Your task to perform on an android device: turn on the 24-hour format for clock Image 0: 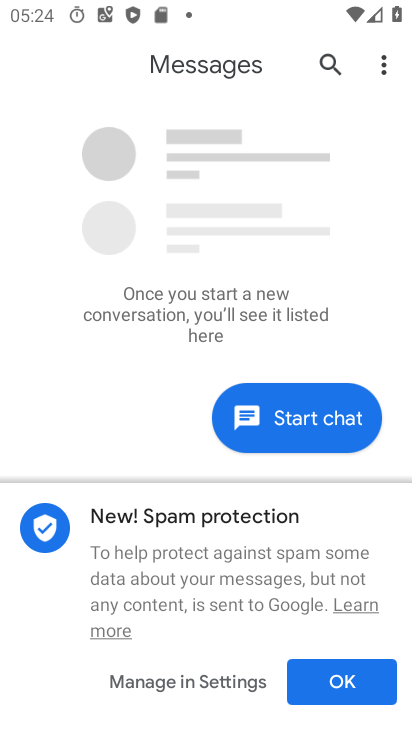
Step 0: press back button
Your task to perform on an android device: turn on the 24-hour format for clock Image 1: 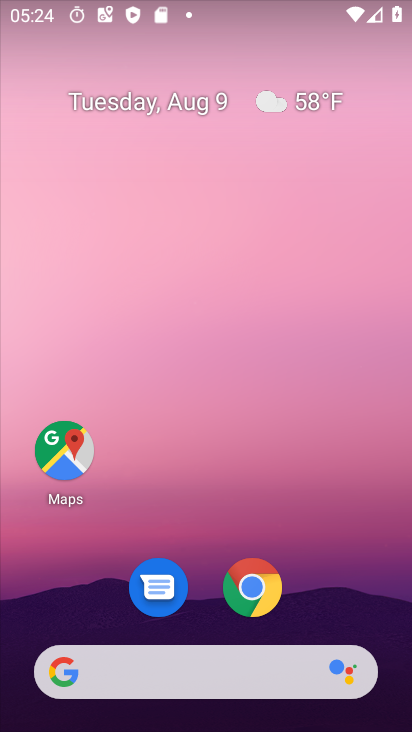
Step 1: drag from (208, 654) to (270, 2)
Your task to perform on an android device: turn on the 24-hour format for clock Image 2: 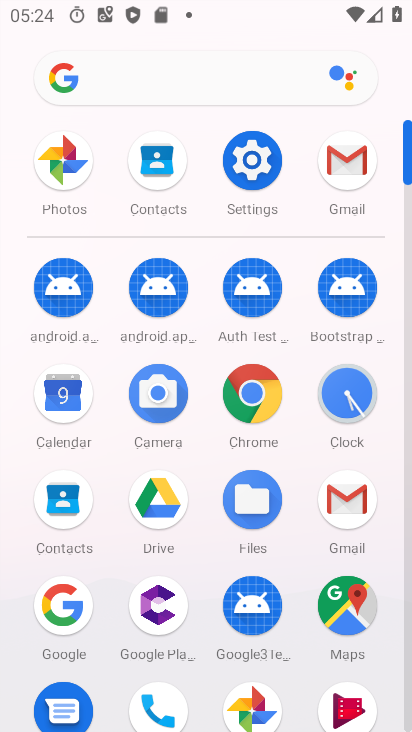
Step 2: click (258, 173)
Your task to perform on an android device: turn on the 24-hour format for clock Image 3: 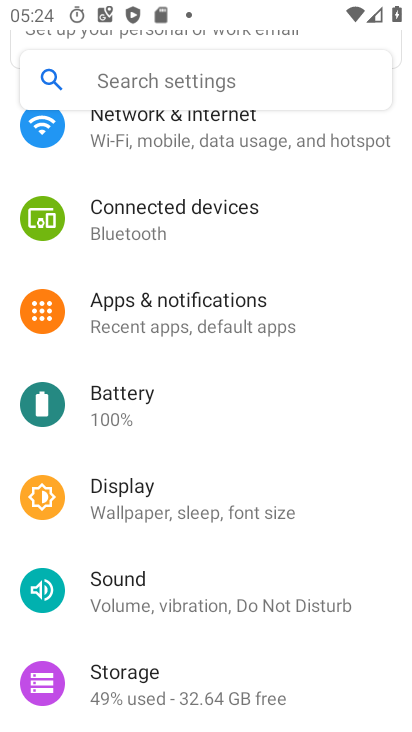
Step 3: drag from (138, 624) to (135, 47)
Your task to perform on an android device: turn on the 24-hour format for clock Image 4: 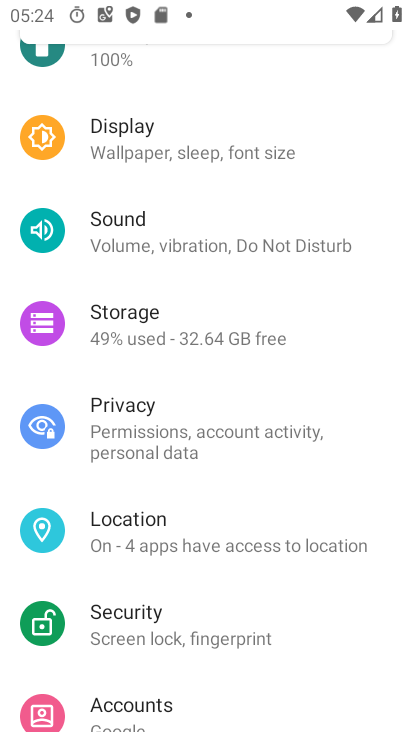
Step 4: drag from (173, 645) to (227, 0)
Your task to perform on an android device: turn on the 24-hour format for clock Image 5: 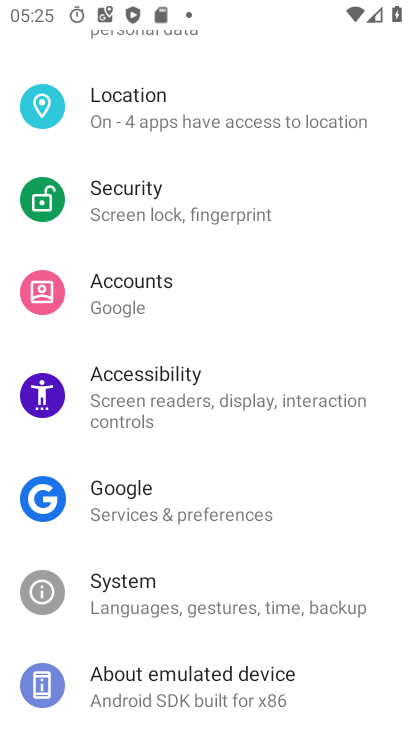
Step 5: click (131, 583)
Your task to perform on an android device: turn on the 24-hour format for clock Image 6: 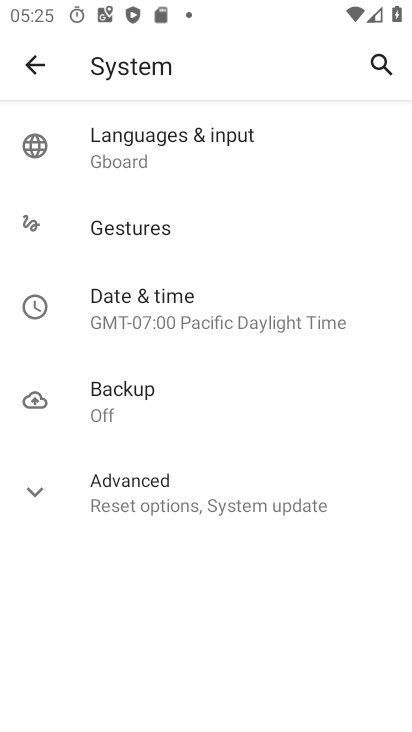
Step 6: click (143, 307)
Your task to perform on an android device: turn on the 24-hour format for clock Image 7: 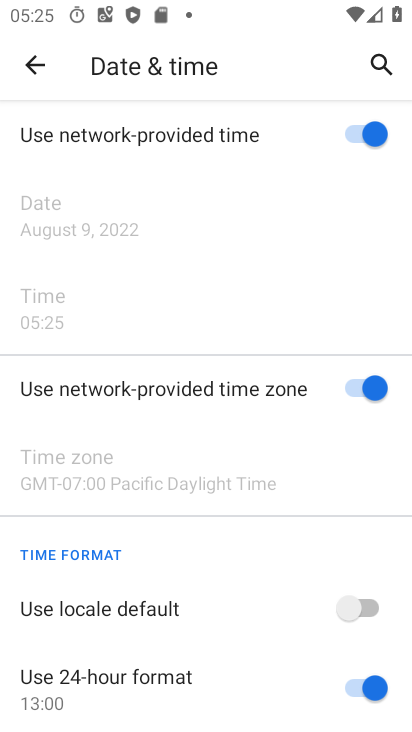
Step 7: task complete